Your task to perform on an android device: check out phone information Image 0: 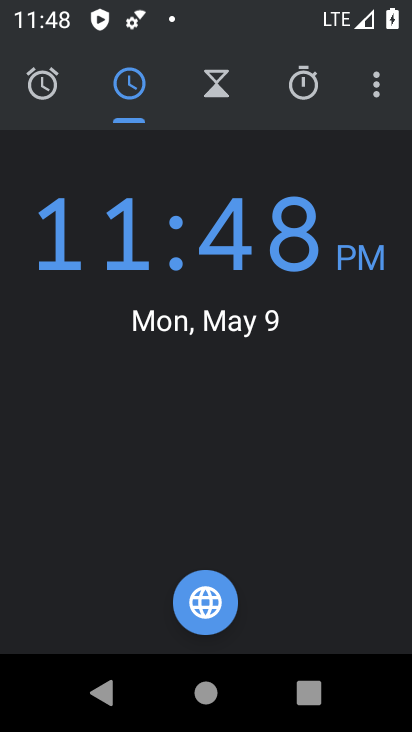
Step 0: press home button
Your task to perform on an android device: check out phone information Image 1: 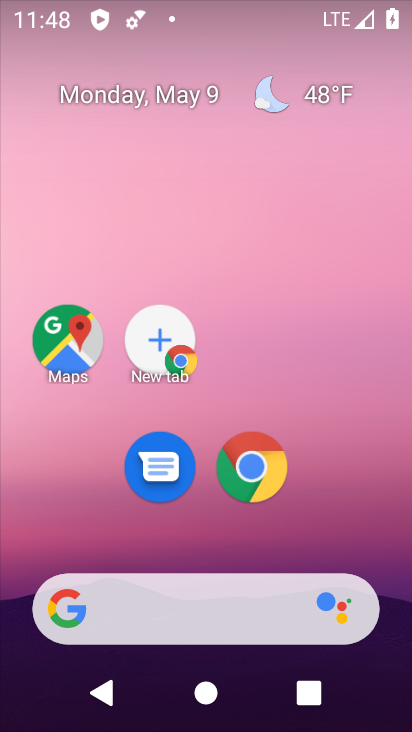
Step 1: drag from (347, 575) to (162, 157)
Your task to perform on an android device: check out phone information Image 2: 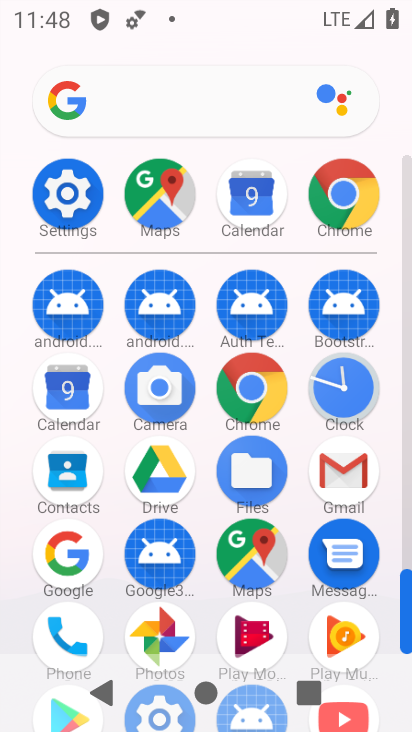
Step 2: click (56, 197)
Your task to perform on an android device: check out phone information Image 3: 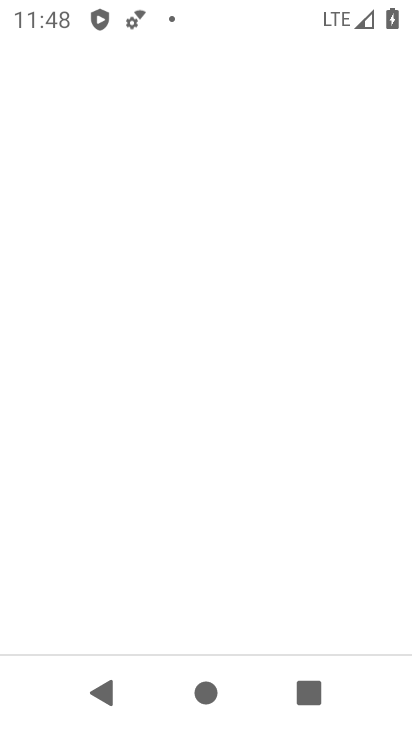
Step 3: click (56, 197)
Your task to perform on an android device: check out phone information Image 4: 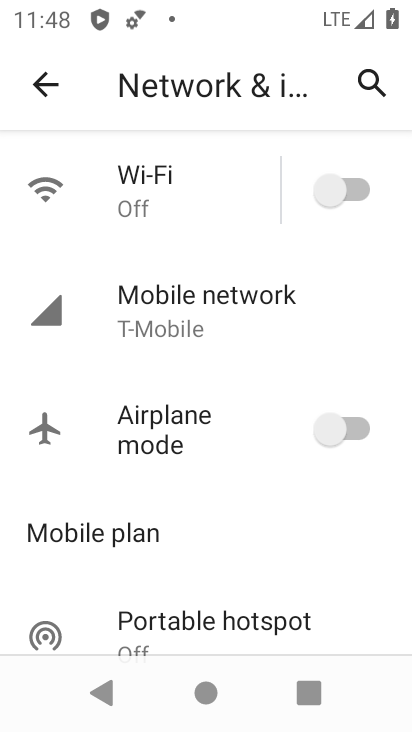
Step 4: click (43, 90)
Your task to perform on an android device: check out phone information Image 5: 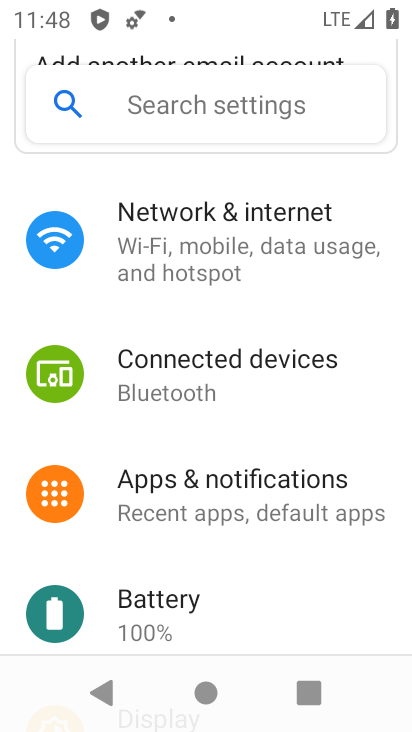
Step 5: drag from (194, 556) to (133, 165)
Your task to perform on an android device: check out phone information Image 6: 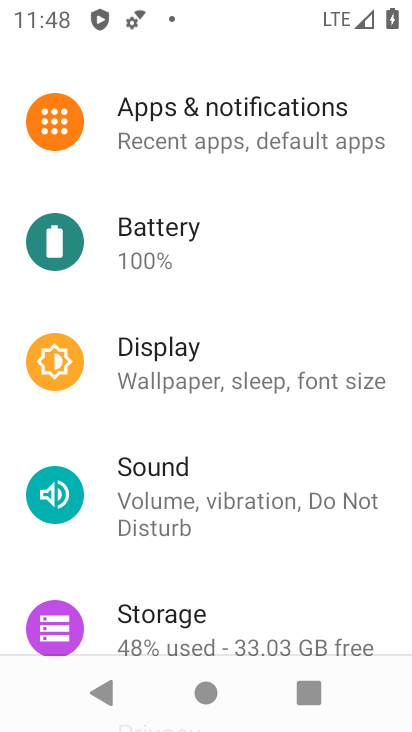
Step 6: drag from (215, 455) to (153, 70)
Your task to perform on an android device: check out phone information Image 7: 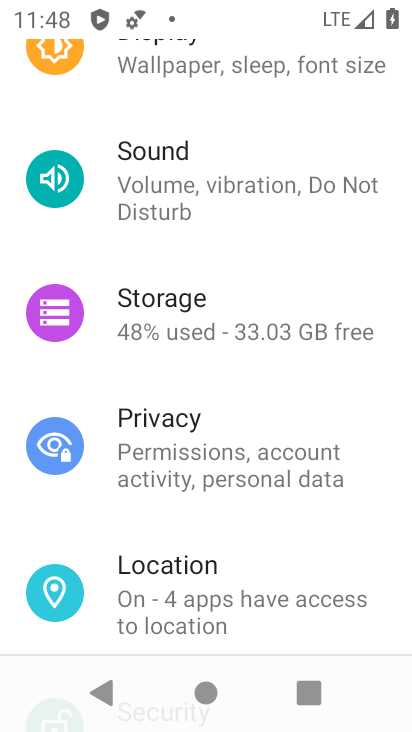
Step 7: drag from (223, 416) to (230, 124)
Your task to perform on an android device: check out phone information Image 8: 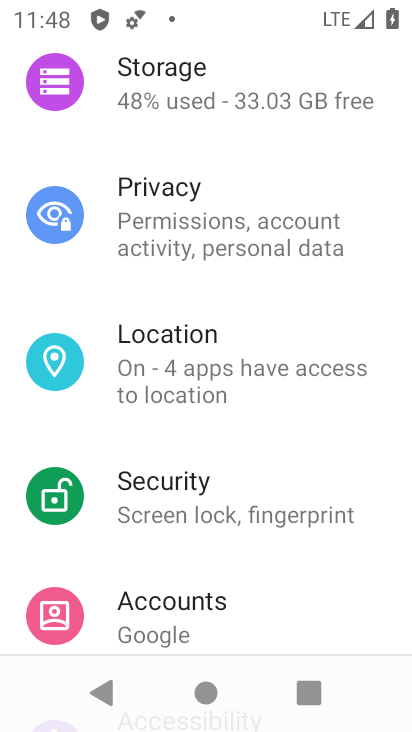
Step 8: drag from (231, 464) to (215, 161)
Your task to perform on an android device: check out phone information Image 9: 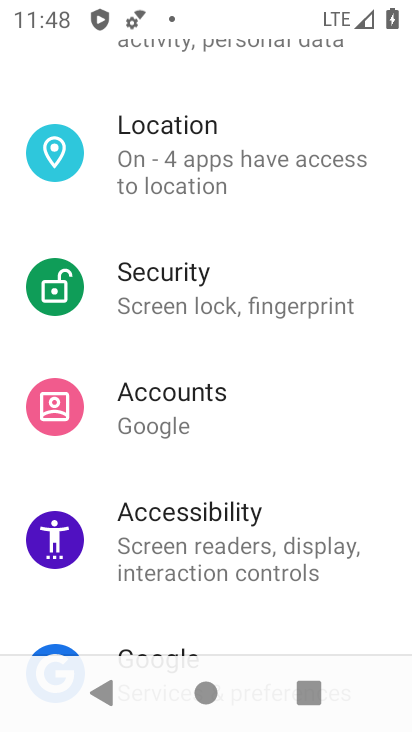
Step 9: click (213, 469)
Your task to perform on an android device: check out phone information Image 10: 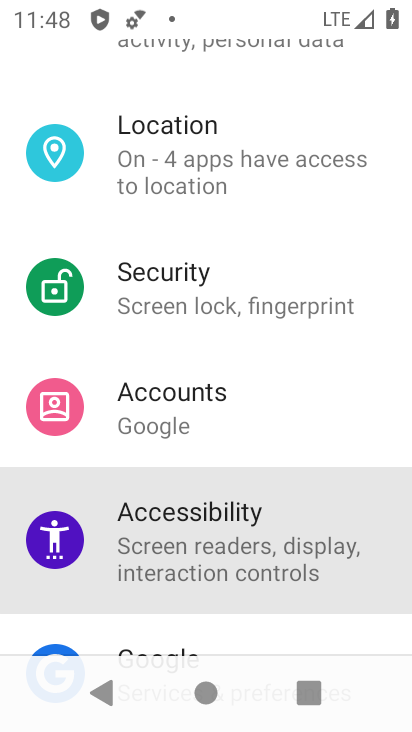
Step 10: drag from (201, 273) to (187, 216)
Your task to perform on an android device: check out phone information Image 11: 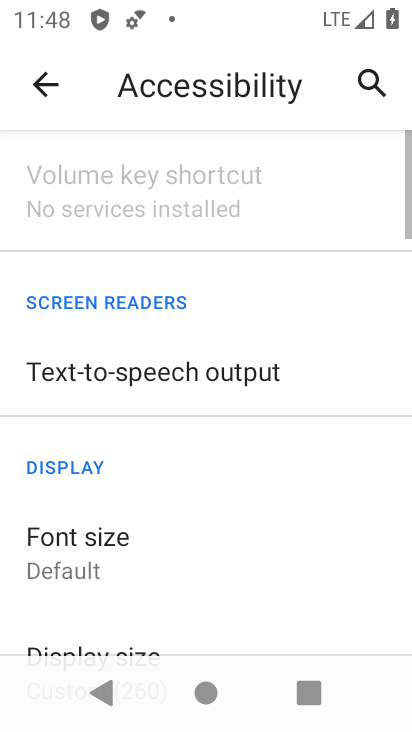
Step 11: click (179, 169)
Your task to perform on an android device: check out phone information Image 12: 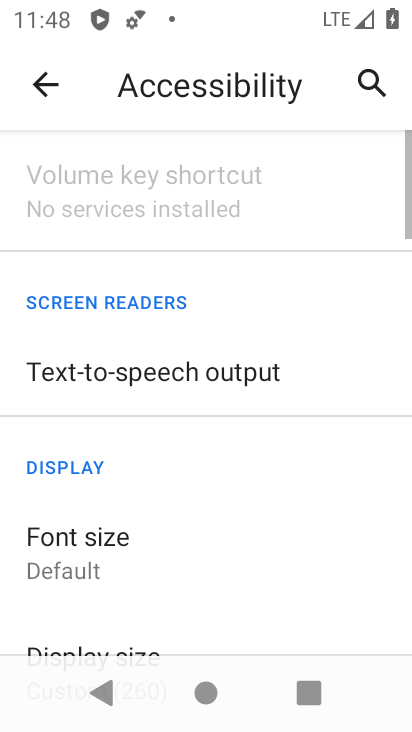
Step 12: click (180, 167)
Your task to perform on an android device: check out phone information Image 13: 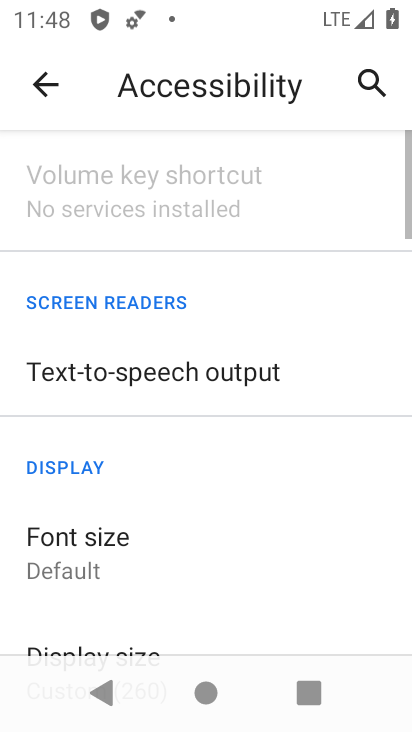
Step 13: click (47, 78)
Your task to perform on an android device: check out phone information Image 14: 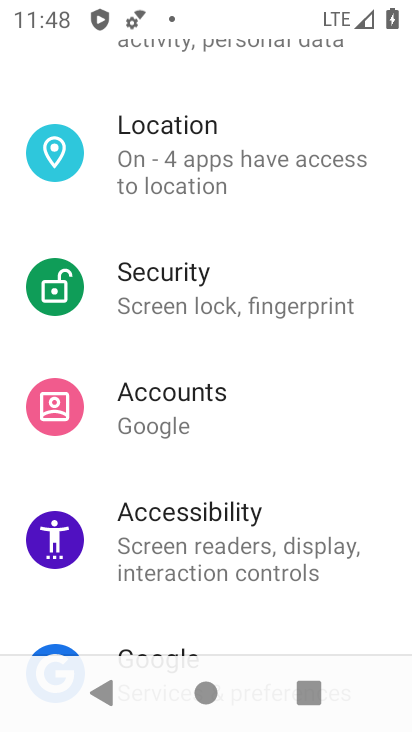
Step 14: drag from (222, 464) to (216, 80)
Your task to perform on an android device: check out phone information Image 15: 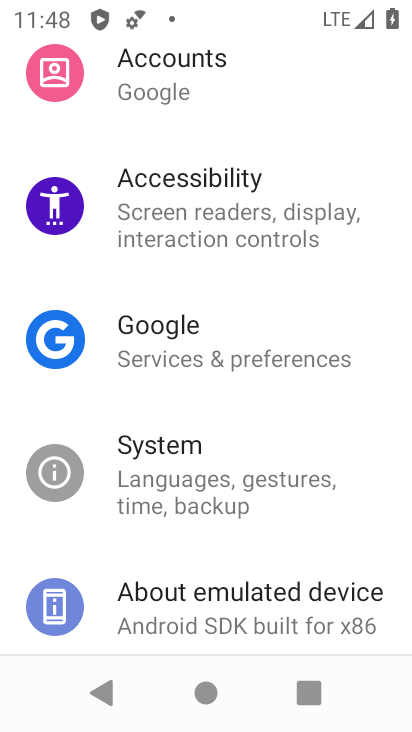
Step 15: drag from (183, 141) to (161, 621)
Your task to perform on an android device: check out phone information Image 16: 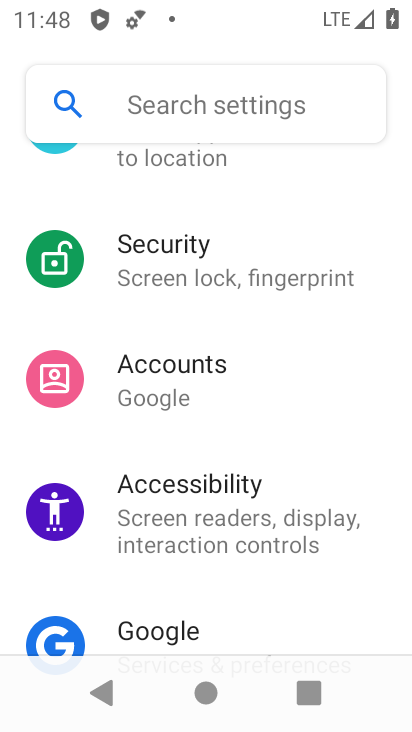
Step 16: drag from (199, 243) to (196, 640)
Your task to perform on an android device: check out phone information Image 17: 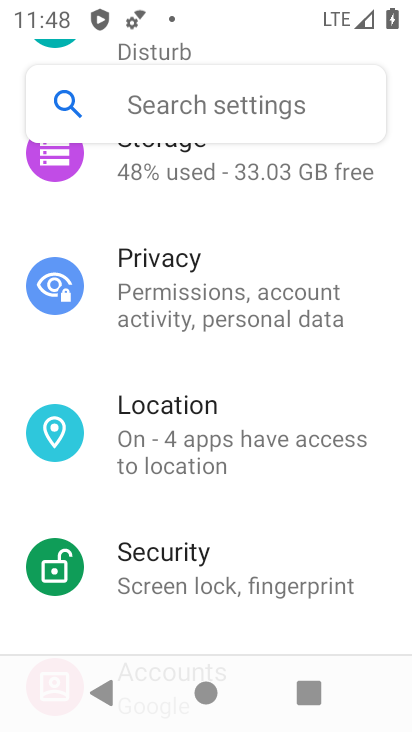
Step 17: click (166, 433)
Your task to perform on an android device: check out phone information Image 18: 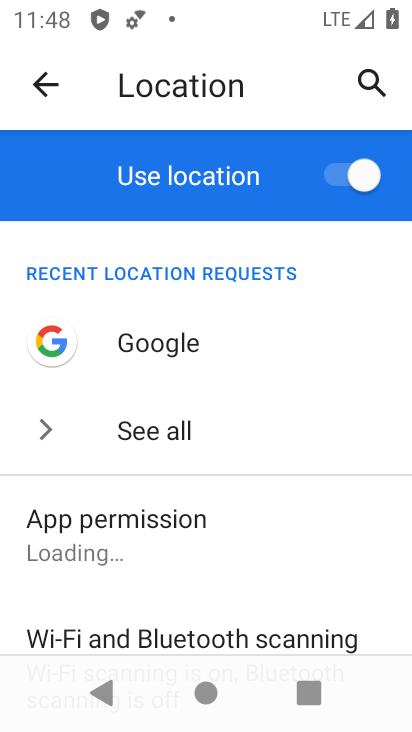
Step 18: drag from (249, 348) to (221, 89)
Your task to perform on an android device: check out phone information Image 19: 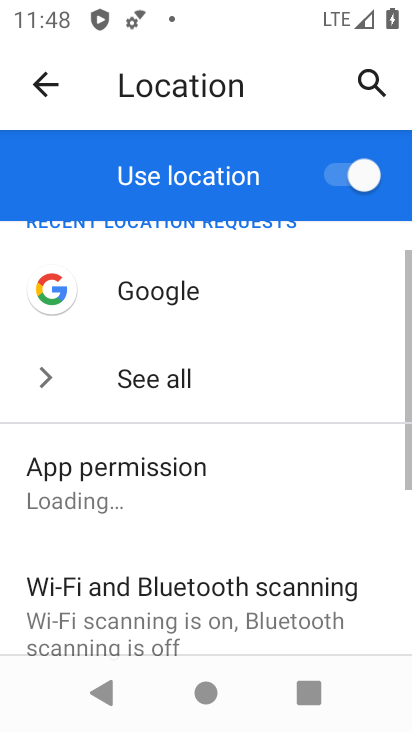
Step 19: drag from (248, 417) to (244, 153)
Your task to perform on an android device: check out phone information Image 20: 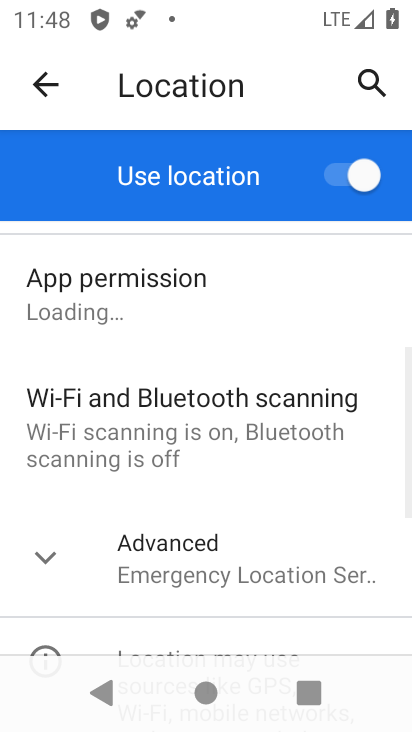
Step 20: drag from (251, 379) to (223, 54)
Your task to perform on an android device: check out phone information Image 21: 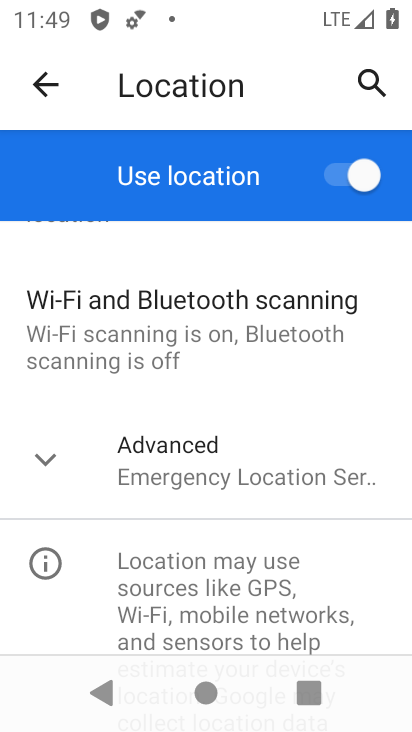
Step 21: drag from (182, 503) to (137, 156)
Your task to perform on an android device: check out phone information Image 22: 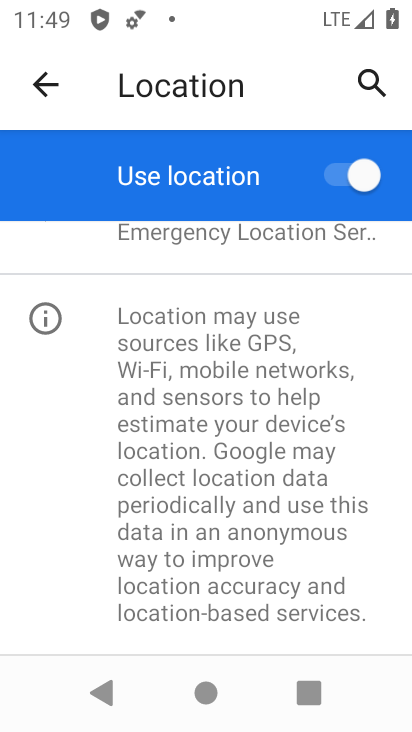
Step 22: drag from (192, 329) to (256, 666)
Your task to perform on an android device: check out phone information Image 23: 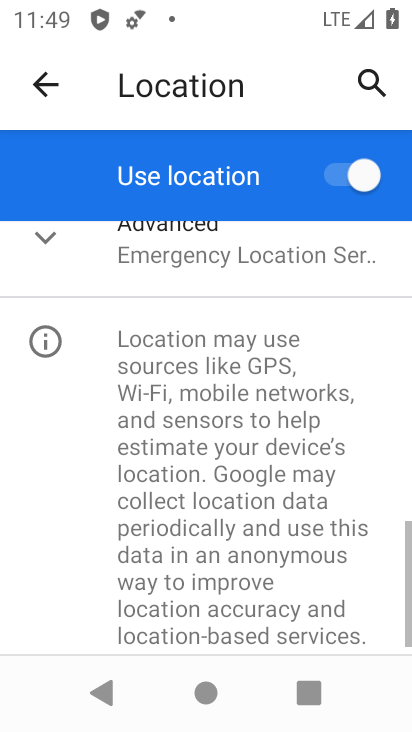
Step 23: drag from (247, 319) to (303, 681)
Your task to perform on an android device: check out phone information Image 24: 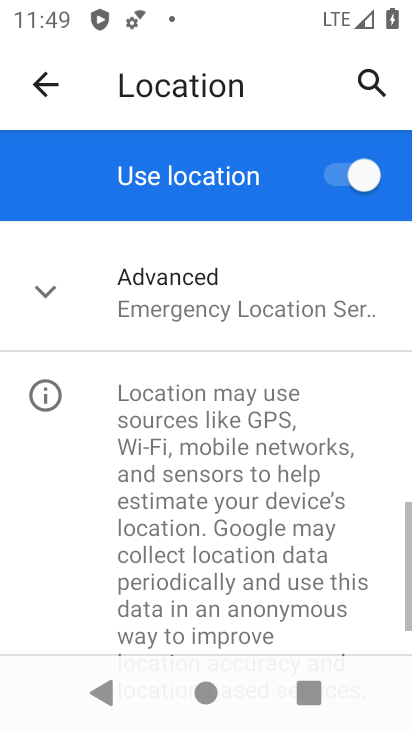
Step 24: drag from (298, 377) to (281, 636)
Your task to perform on an android device: check out phone information Image 25: 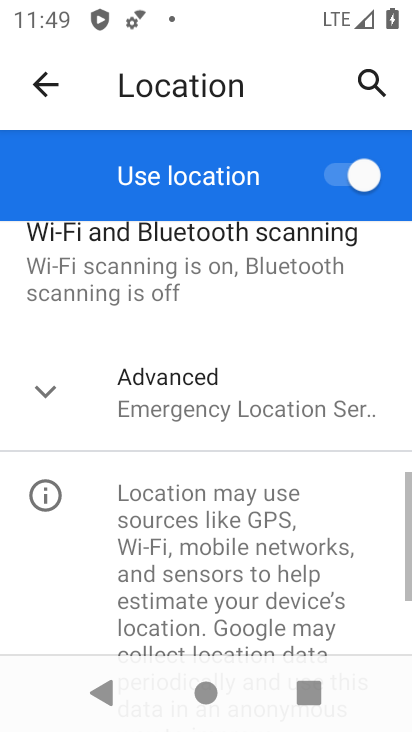
Step 25: drag from (200, 371) to (230, 566)
Your task to perform on an android device: check out phone information Image 26: 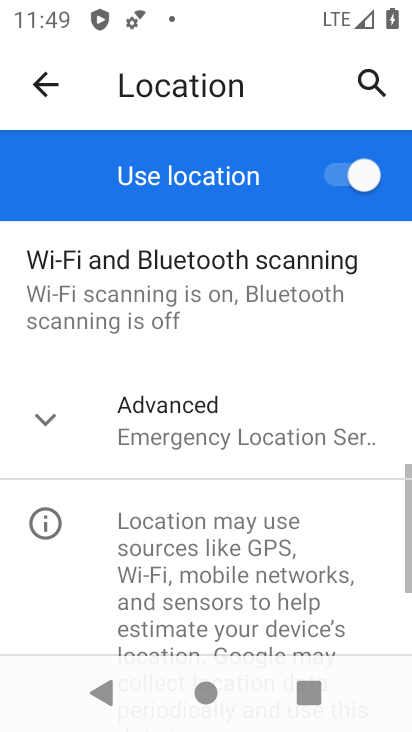
Step 26: drag from (179, 279) to (203, 636)
Your task to perform on an android device: check out phone information Image 27: 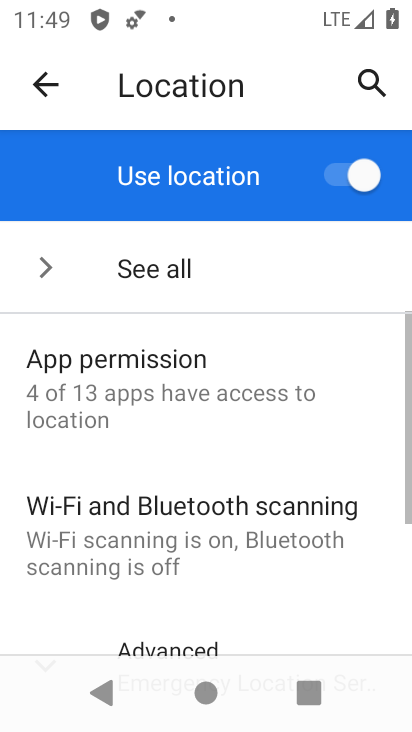
Step 27: drag from (169, 297) to (171, 627)
Your task to perform on an android device: check out phone information Image 28: 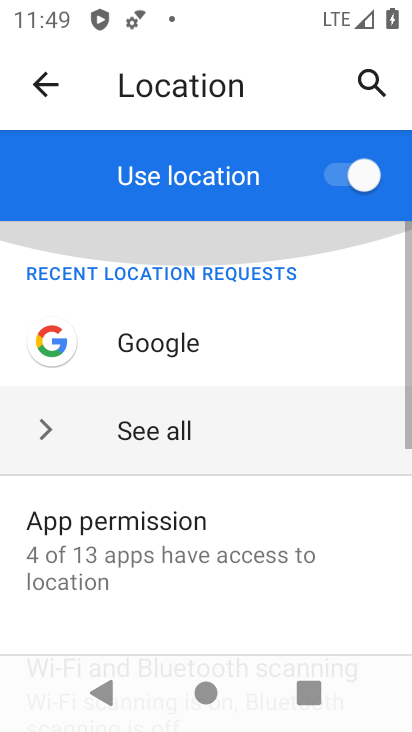
Step 28: drag from (136, 331) to (143, 668)
Your task to perform on an android device: check out phone information Image 29: 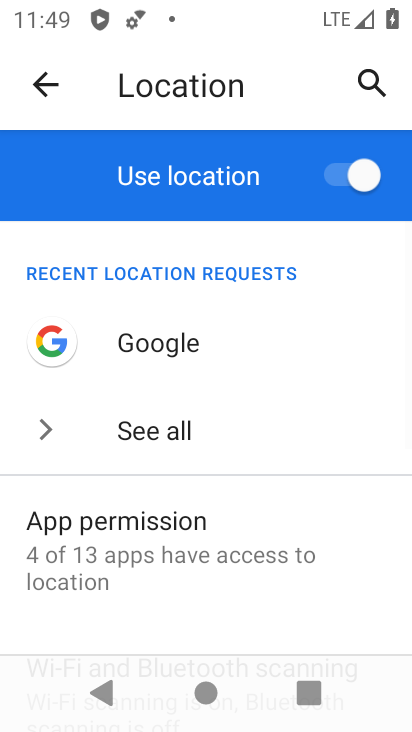
Step 29: click (100, 524)
Your task to perform on an android device: check out phone information Image 30: 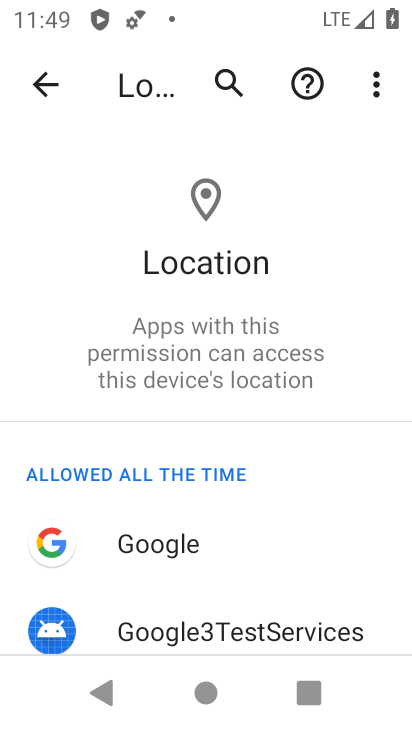
Step 30: task complete